Your task to perform on an android device: read, delete, or share a saved page in the chrome app Image 0: 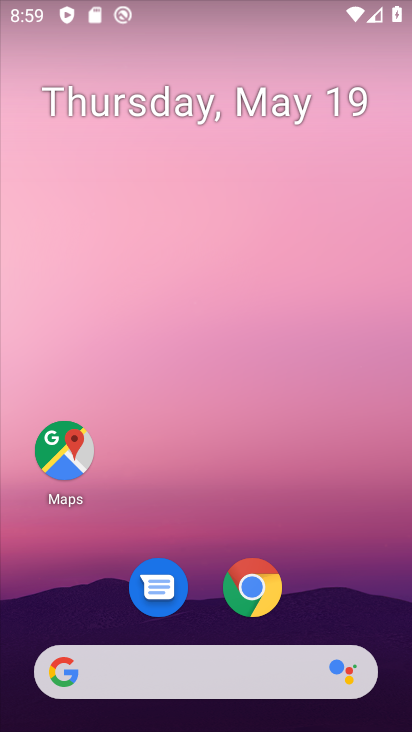
Step 0: click (269, 588)
Your task to perform on an android device: read, delete, or share a saved page in the chrome app Image 1: 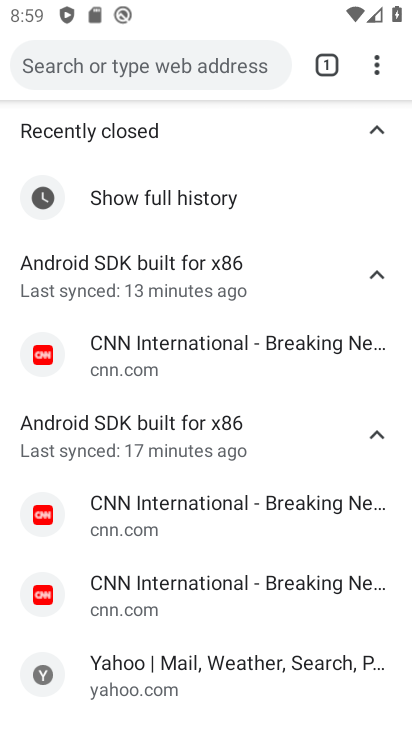
Step 1: task complete